Your task to perform on an android device: move a message to another label in the gmail app Image 0: 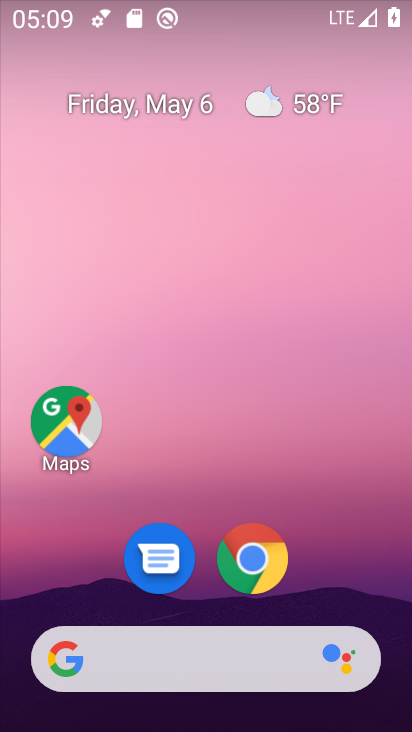
Step 0: drag from (312, 615) to (324, 20)
Your task to perform on an android device: move a message to another label in the gmail app Image 1: 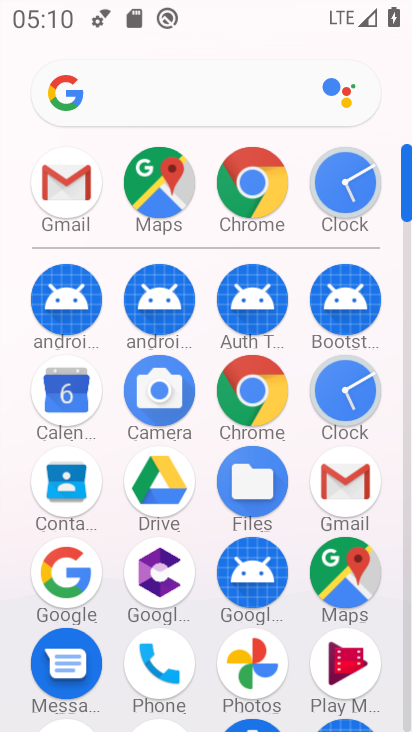
Step 1: click (337, 482)
Your task to perform on an android device: move a message to another label in the gmail app Image 2: 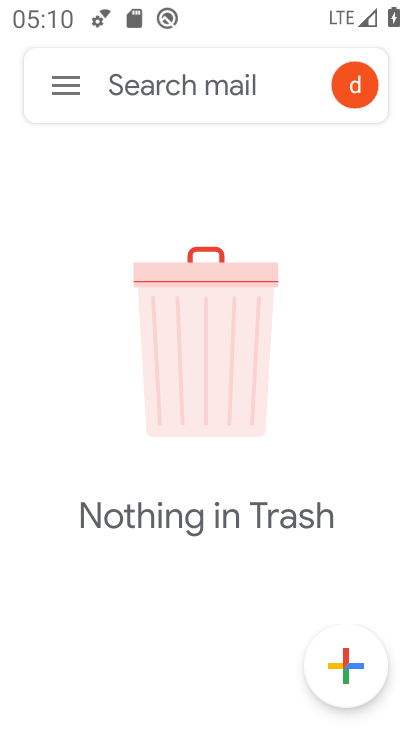
Step 2: click (53, 86)
Your task to perform on an android device: move a message to another label in the gmail app Image 3: 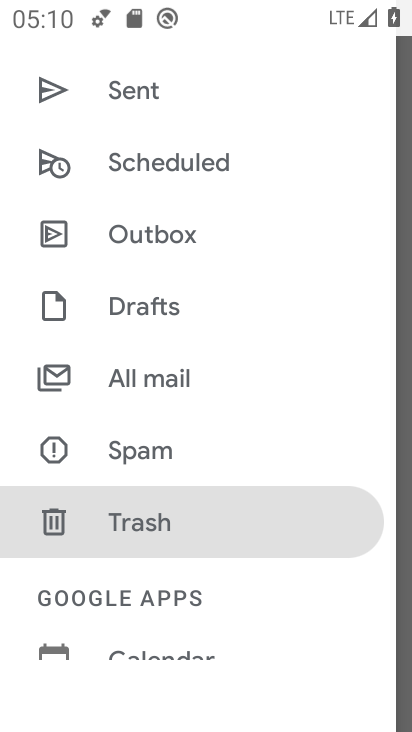
Step 3: drag from (230, 274) to (204, 709)
Your task to perform on an android device: move a message to another label in the gmail app Image 4: 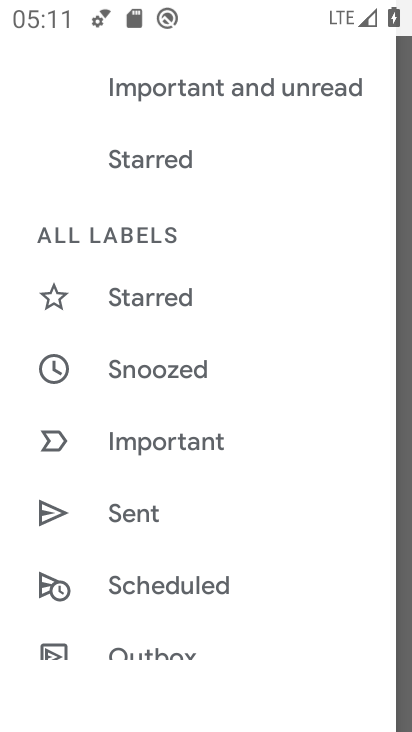
Step 4: drag from (209, 381) to (230, 134)
Your task to perform on an android device: move a message to another label in the gmail app Image 5: 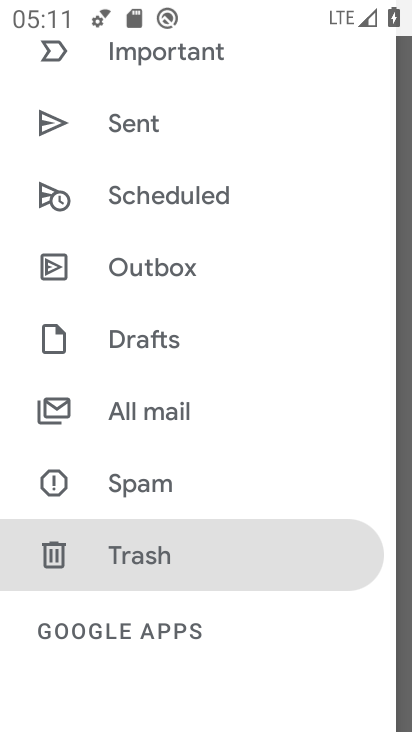
Step 5: drag from (238, 615) to (259, 210)
Your task to perform on an android device: move a message to another label in the gmail app Image 6: 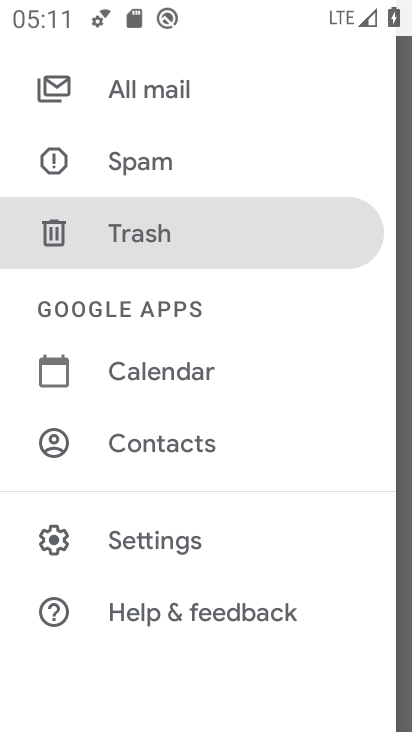
Step 6: drag from (215, 185) to (204, 663)
Your task to perform on an android device: move a message to another label in the gmail app Image 7: 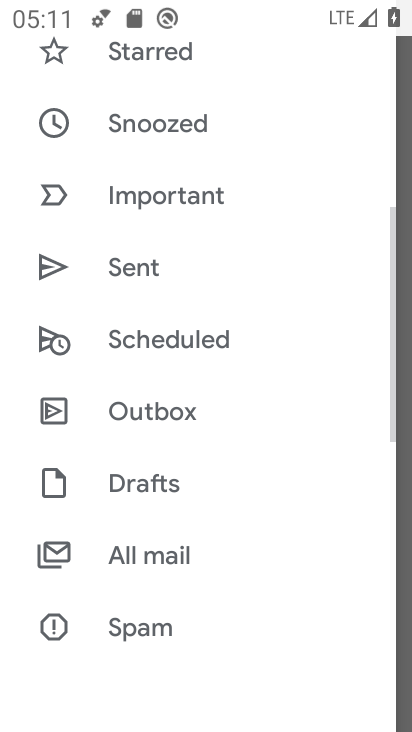
Step 7: drag from (176, 238) to (202, 675)
Your task to perform on an android device: move a message to another label in the gmail app Image 8: 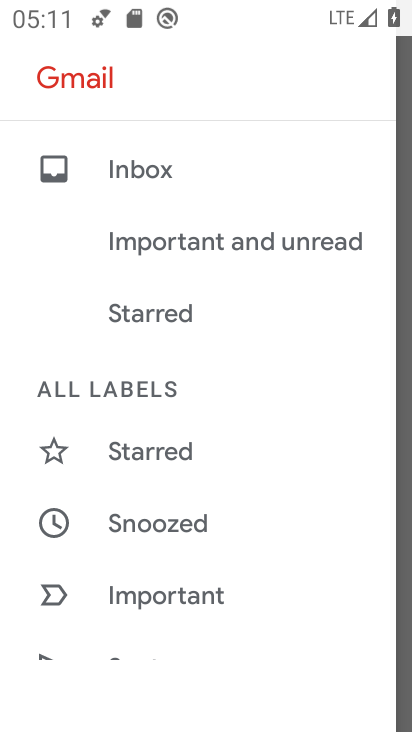
Step 8: click (170, 162)
Your task to perform on an android device: move a message to another label in the gmail app Image 9: 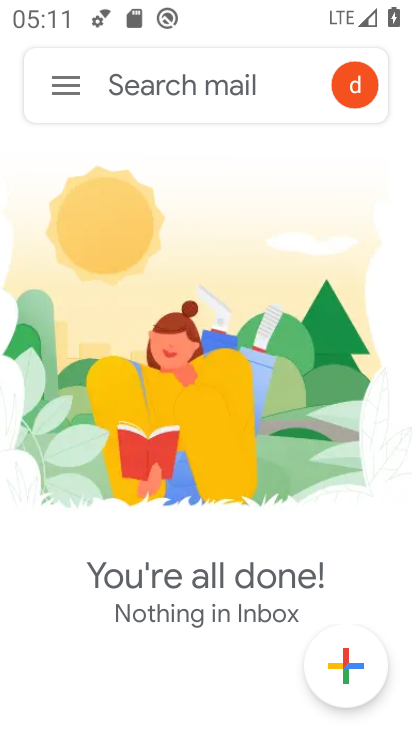
Step 9: task complete